Your task to perform on an android device: turn off improve location accuracy Image 0: 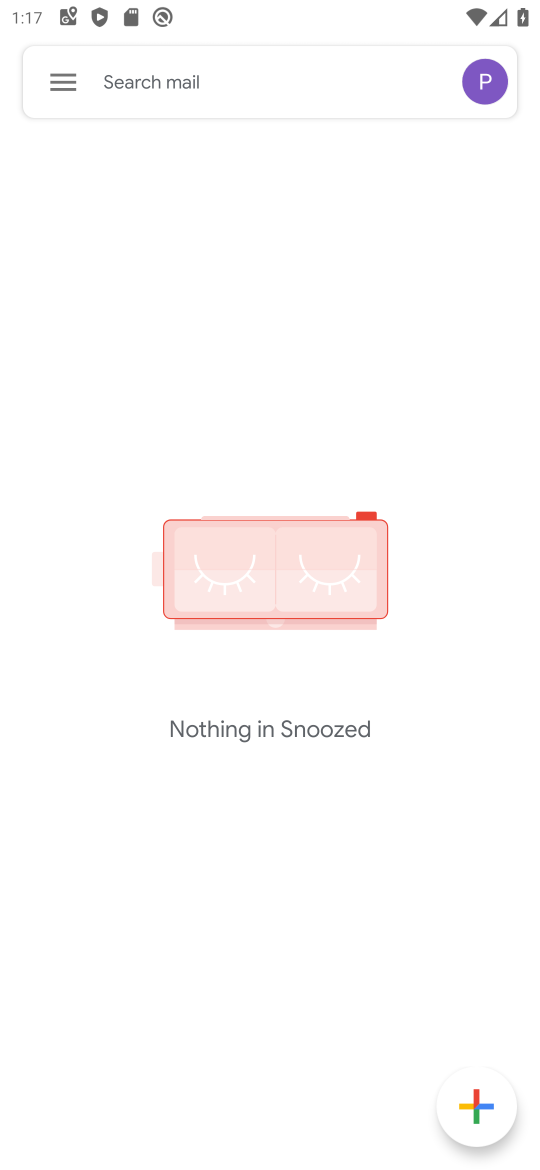
Step 0: press home button
Your task to perform on an android device: turn off improve location accuracy Image 1: 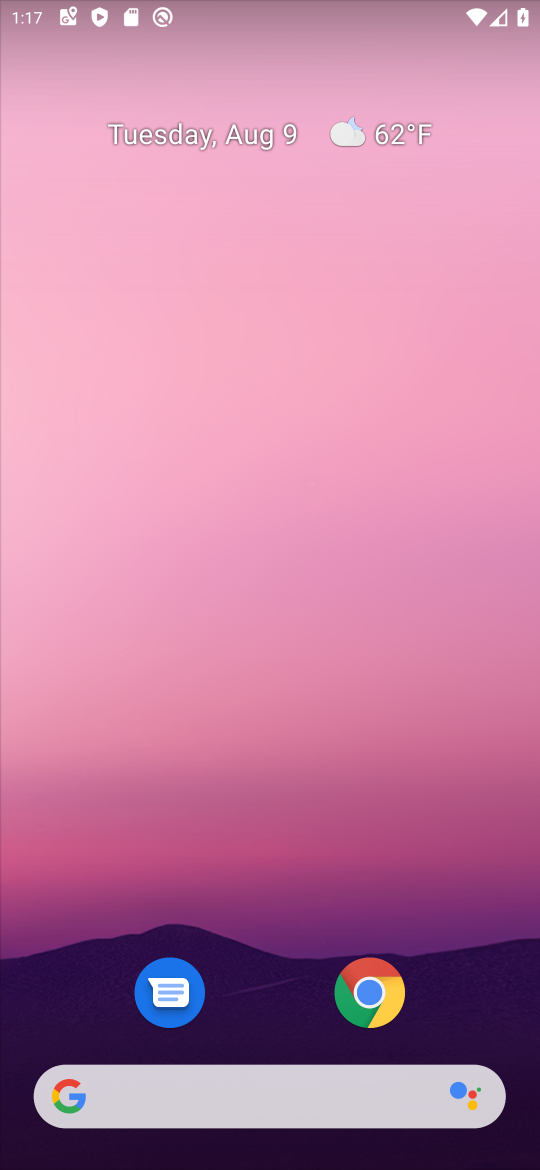
Step 1: drag from (273, 882) to (352, 77)
Your task to perform on an android device: turn off improve location accuracy Image 2: 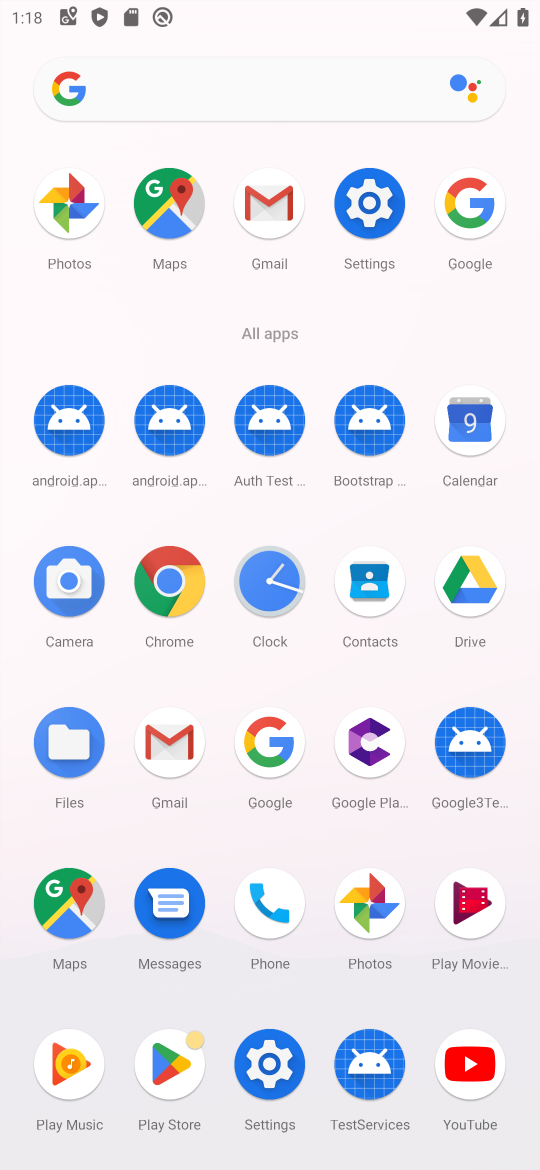
Step 2: click (373, 207)
Your task to perform on an android device: turn off improve location accuracy Image 3: 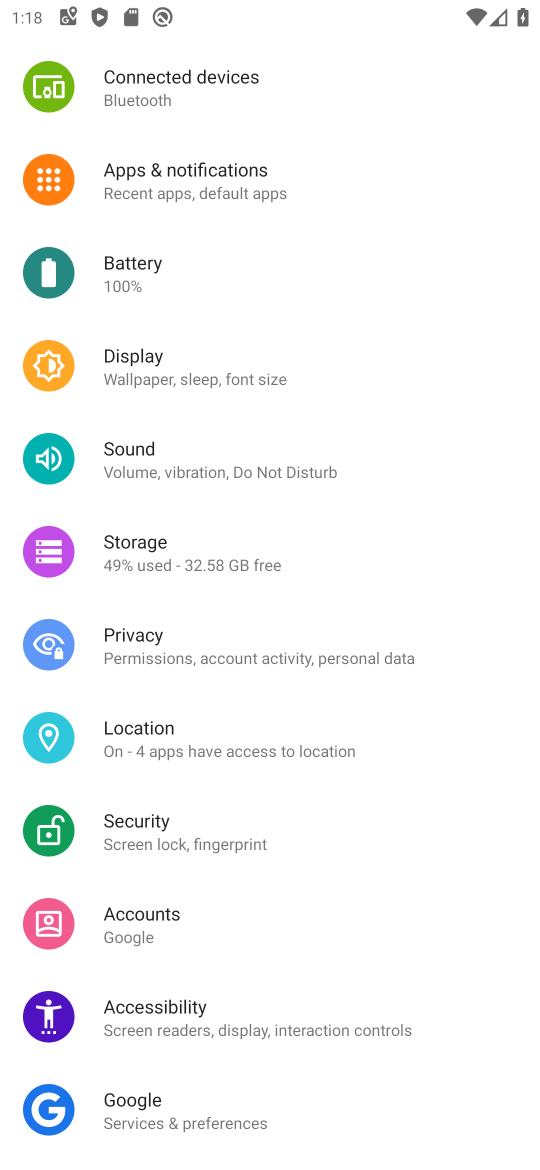
Step 3: click (138, 749)
Your task to perform on an android device: turn off improve location accuracy Image 4: 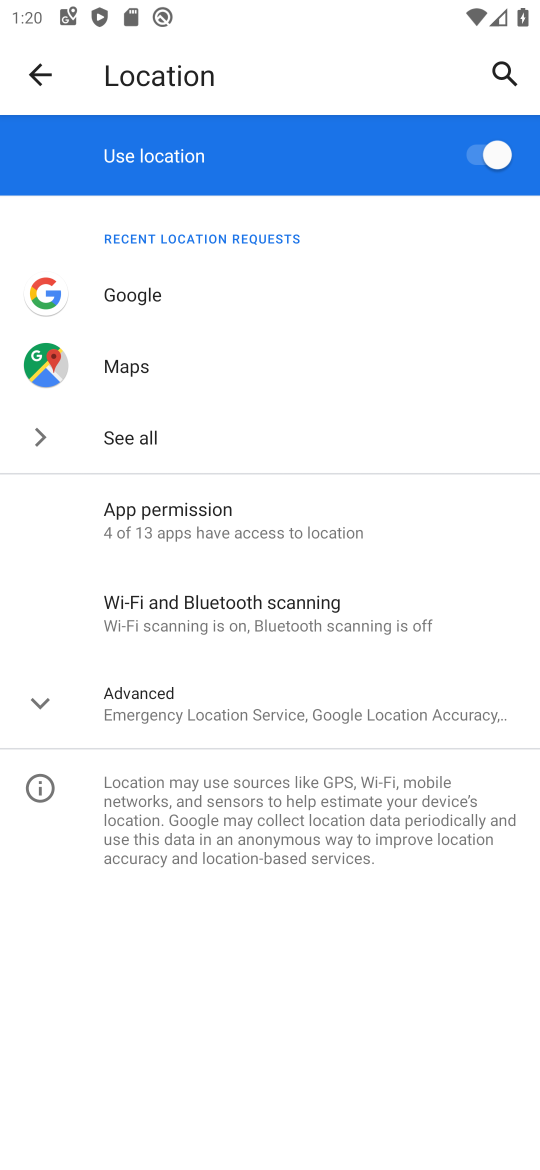
Step 4: click (234, 695)
Your task to perform on an android device: turn off improve location accuracy Image 5: 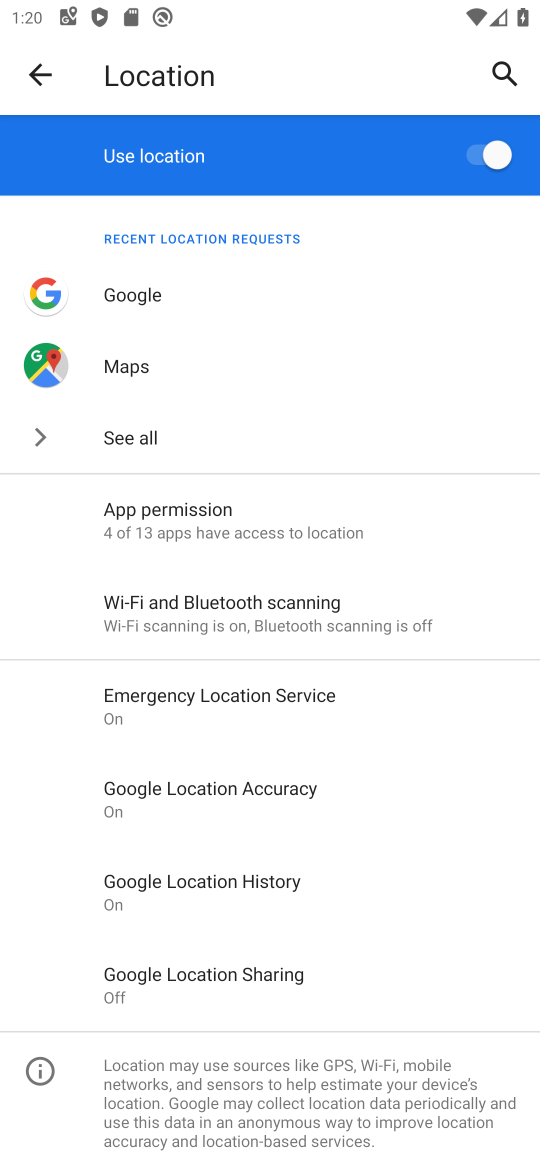
Step 5: click (210, 806)
Your task to perform on an android device: turn off improve location accuracy Image 6: 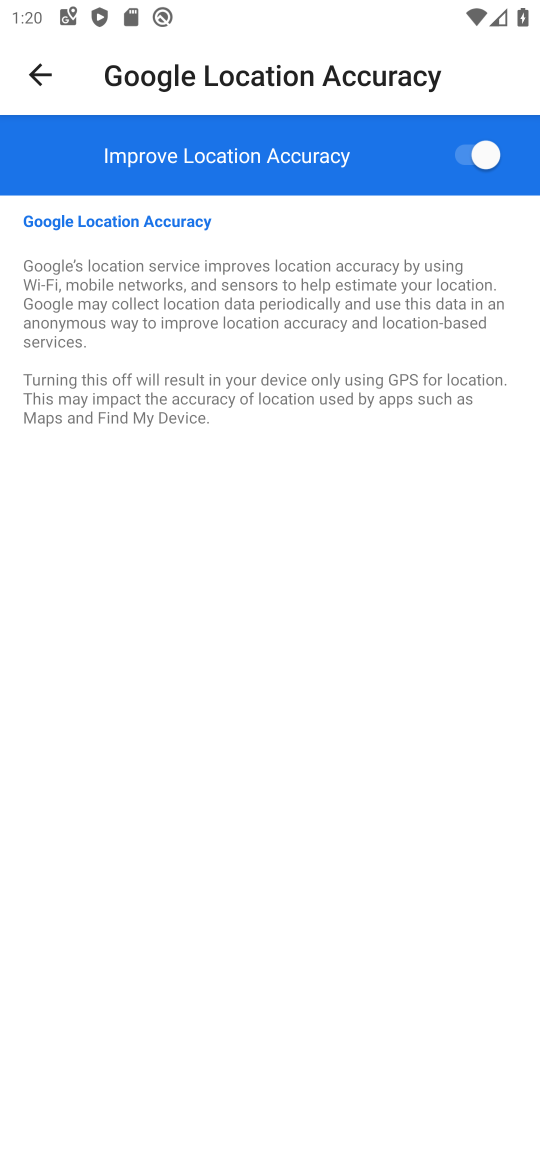
Step 6: click (465, 151)
Your task to perform on an android device: turn off improve location accuracy Image 7: 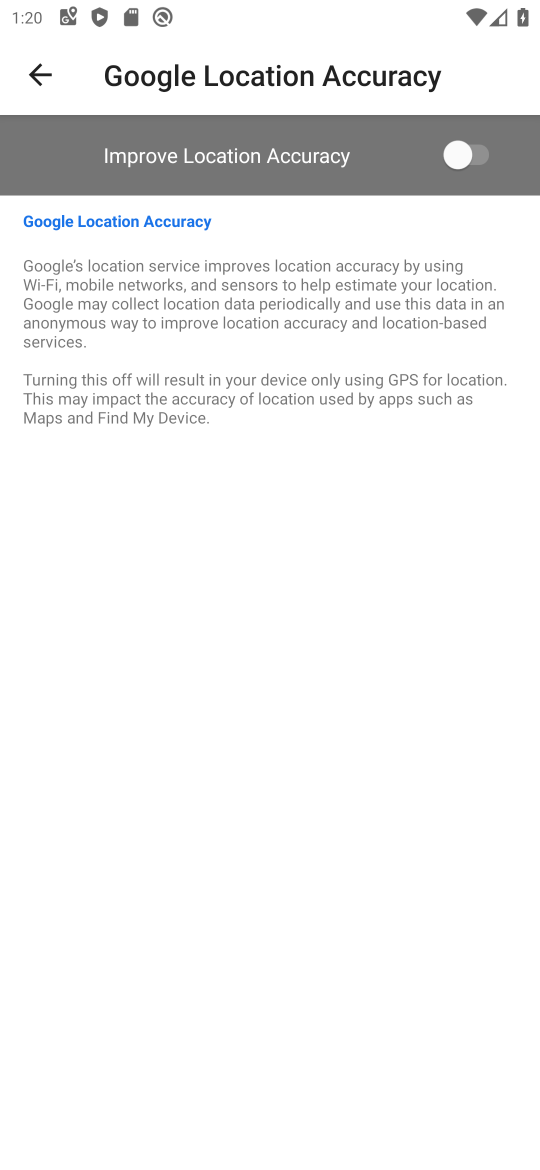
Step 7: task complete